Your task to perform on an android device: Play the last video I watched on Youtube Image 0: 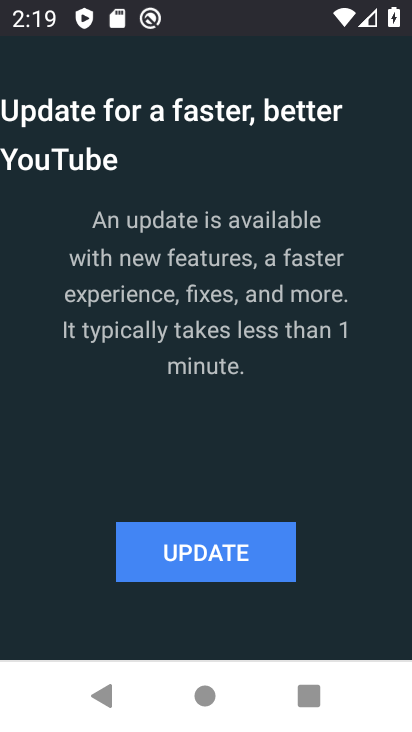
Step 0: click (218, 545)
Your task to perform on an android device: Play the last video I watched on Youtube Image 1: 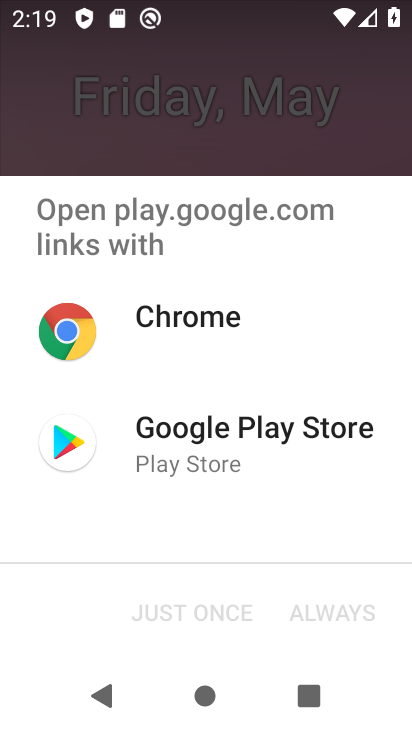
Step 1: press home button
Your task to perform on an android device: Play the last video I watched on Youtube Image 2: 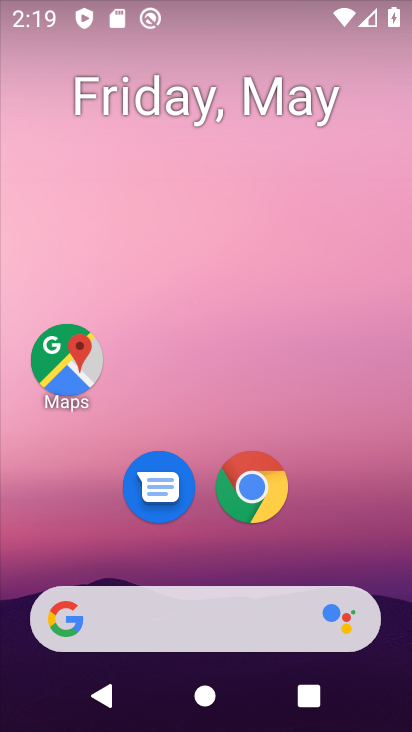
Step 2: drag from (179, 502) to (317, 148)
Your task to perform on an android device: Play the last video I watched on Youtube Image 3: 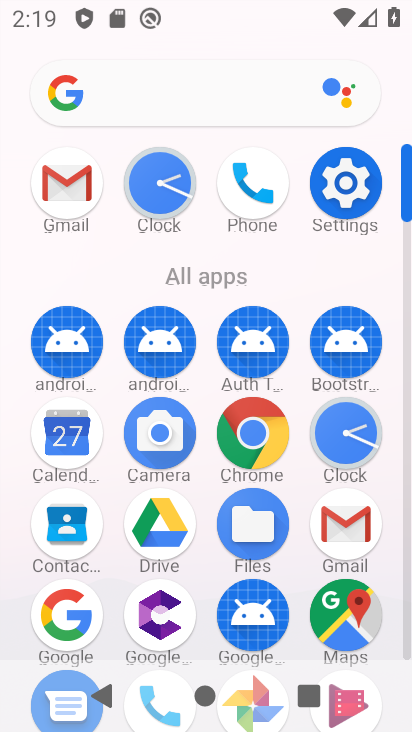
Step 3: drag from (219, 547) to (332, 133)
Your task to perform on an android device: Play the last video I watched on Youtube Image 4: 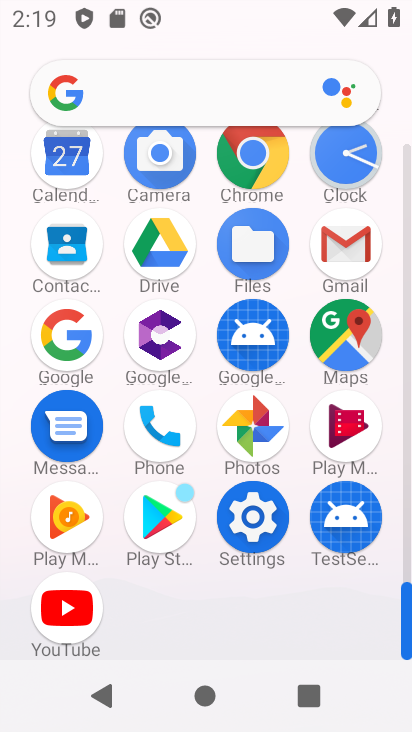
Step 4: click (62, 613)
Your task to perform on an android device: Play the last video I watched on Youtube Image 5: 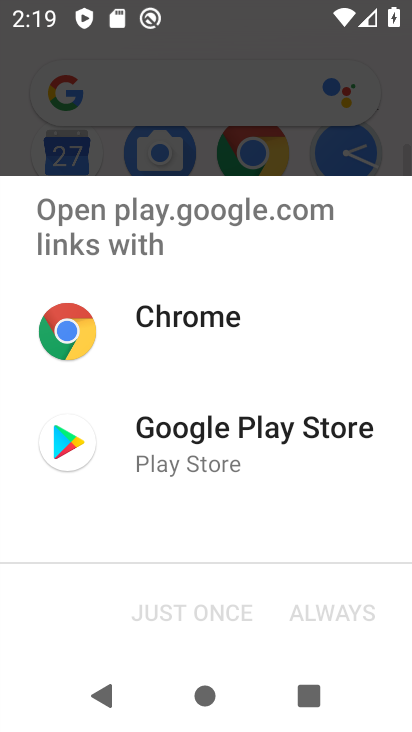
Step 5: click (199, 441)
Your task to perform on an android device: Play the last video I watched on Youtube Image 6: 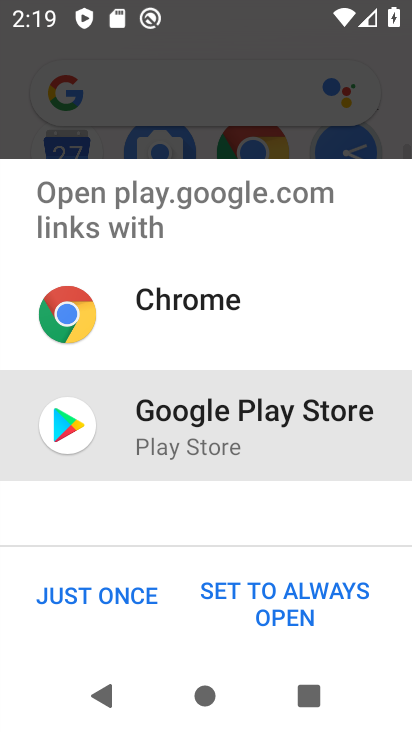
Step 6: click (120, 596)
Your task to perform on an android device: Play the last video I watched on Youtube Image 7: 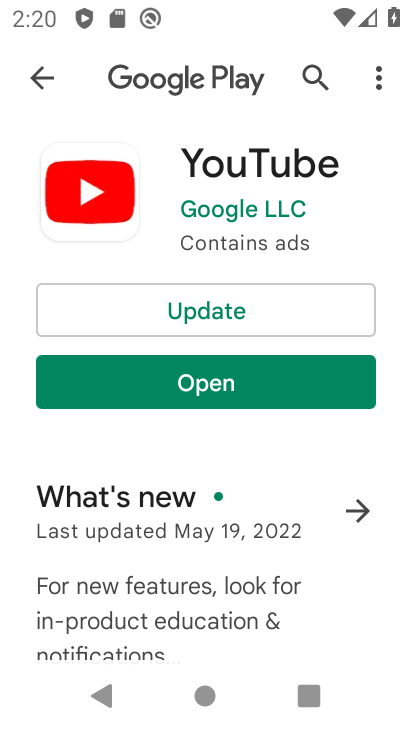
Step 7: click (211, 310)
Your task to perform on an android device: Play the last video I watched on Youtube Image 8: 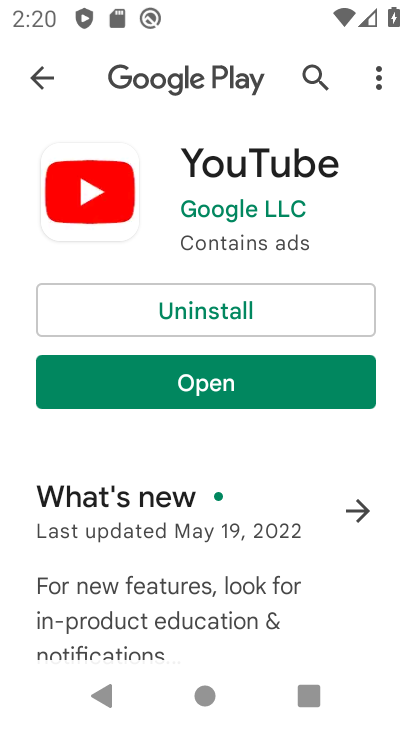
Step 8: click (273, 395)
Your task to perform on an android device: Play the last video I watched on Youtube Image 9: 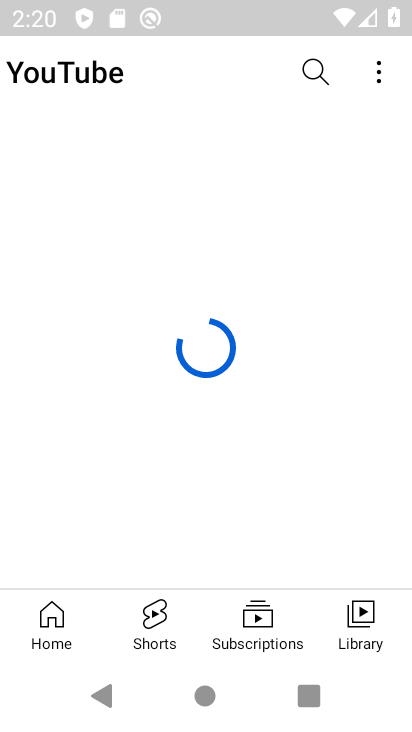
Step 9: click (369, 632)
Your task to perform on an android device: Play the last video I watched on Youtube Image 10: 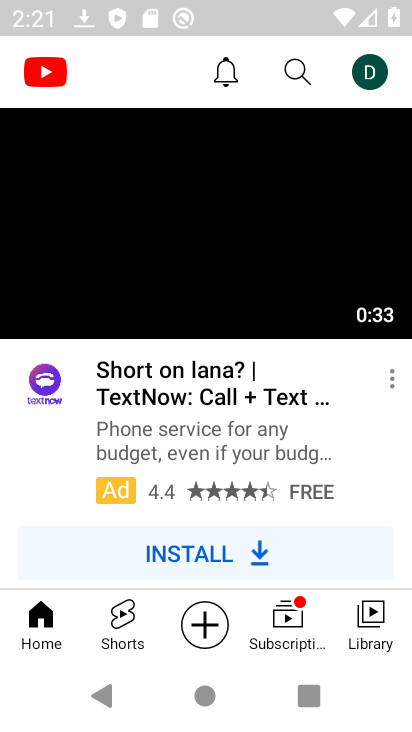
Step 10: click (394, 599)
Your task to perform on an android device: Play the last video I watched on Youtube Image 11: 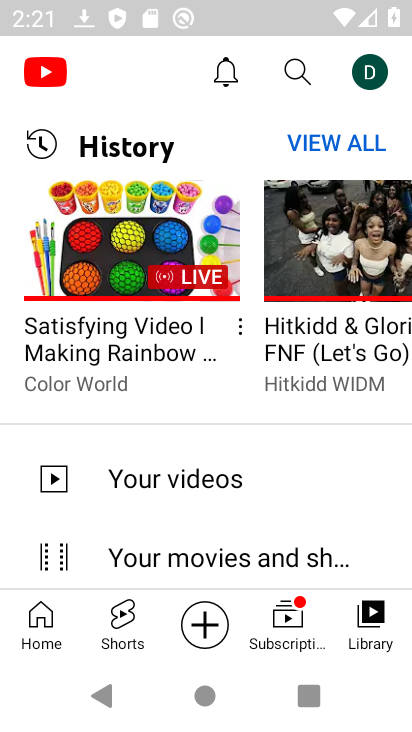
Step 11: click (196, 556)
Your task to perform on an android device: Play the last video I watched on Youtube Image 12: 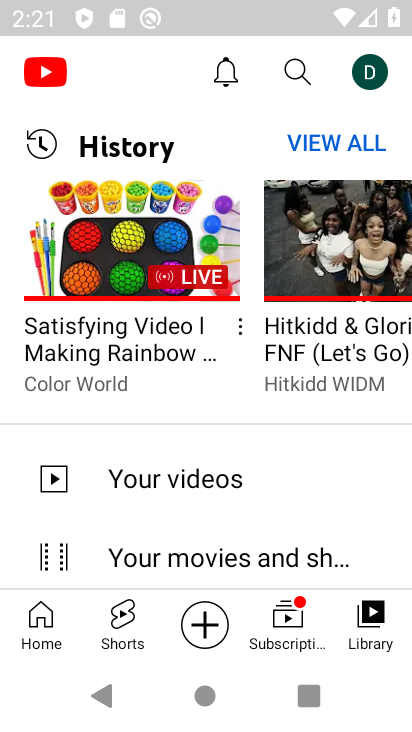
Step 12: click (111, 257)
Your task to perform on an android device: Play the last video I watched on Youtube Image 13: 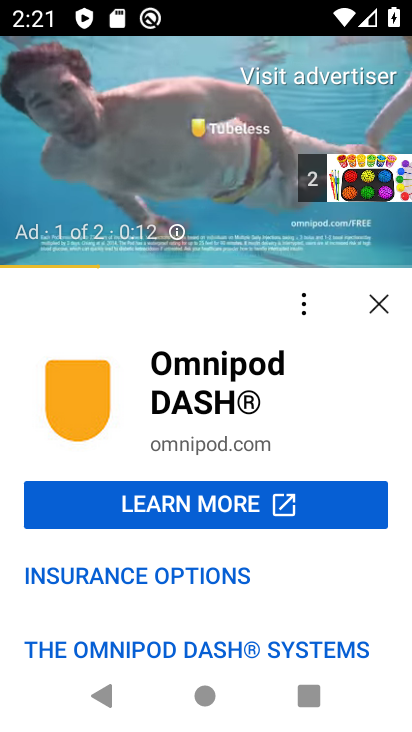
Step 13: task complete